Your task to perform on an android device: turn on the 24-hour format for clock Image 0: 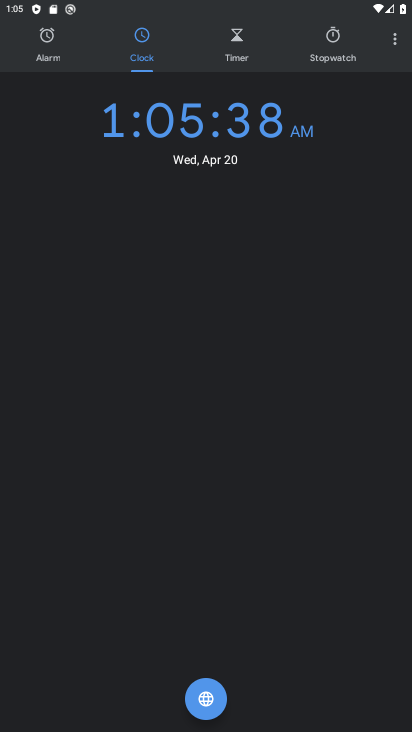
Step 0: click (393, 40)
Your task to perform on an android device: turn on the 24-hour format for clock Image 1: 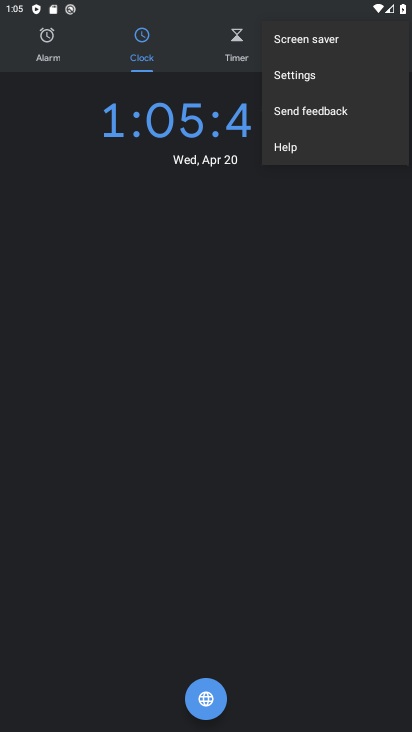
Step 1: click (297, 74)
Your task to perform on an android device: turn on the 24-hour format for clock Image 2: 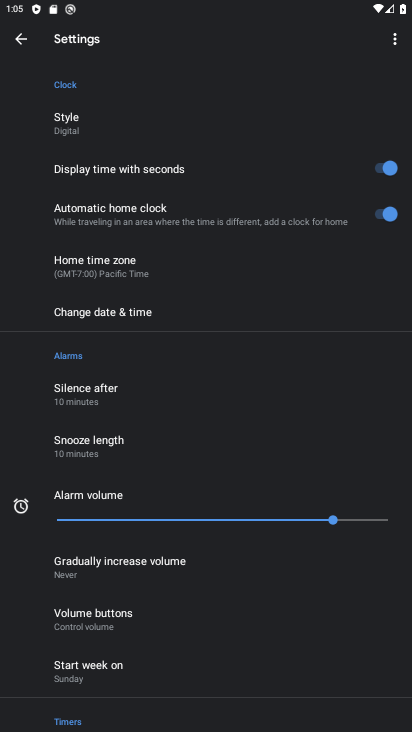
Step 2: click (110, 312)
Your task to perform on an android device: turn on the 24-hour format for clock Image 3: 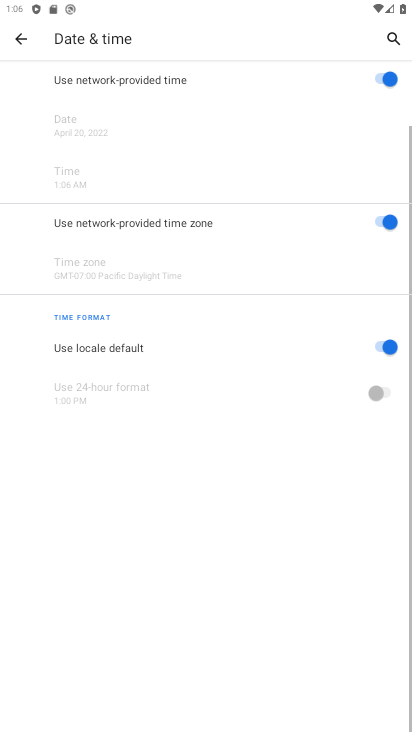
Step 3: click (390, 358)
Your task to perform on an android device: turn on the 24-hour format for clock Image 4: 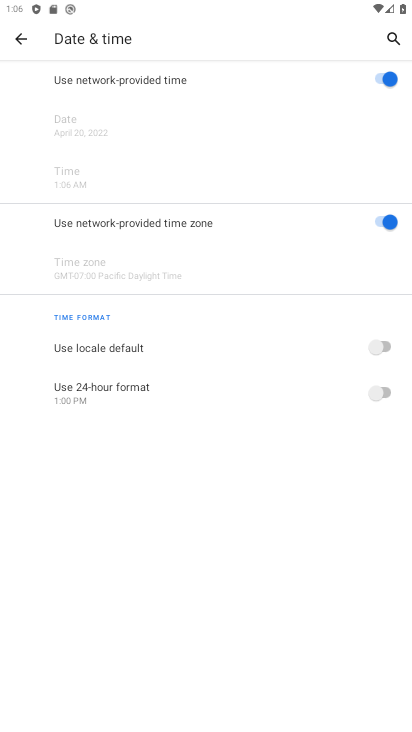
Step 4: click (379, 393)
Your task to perform on an android device: turn on the 24-hour format for clock Image 5: 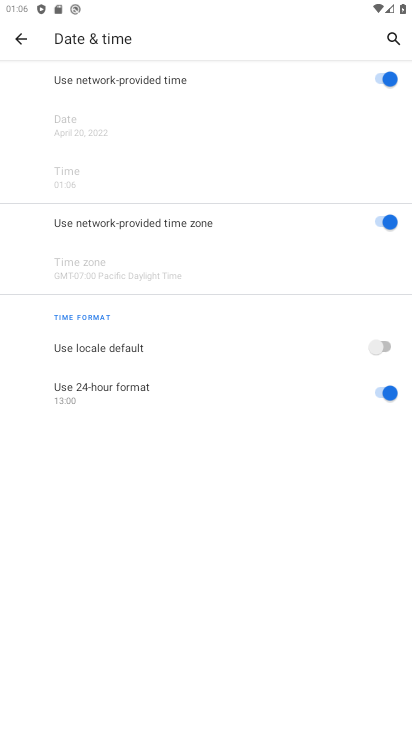
Step 5: task complete